Your task to perform on an android device: change the upload size in google photos Image 0: 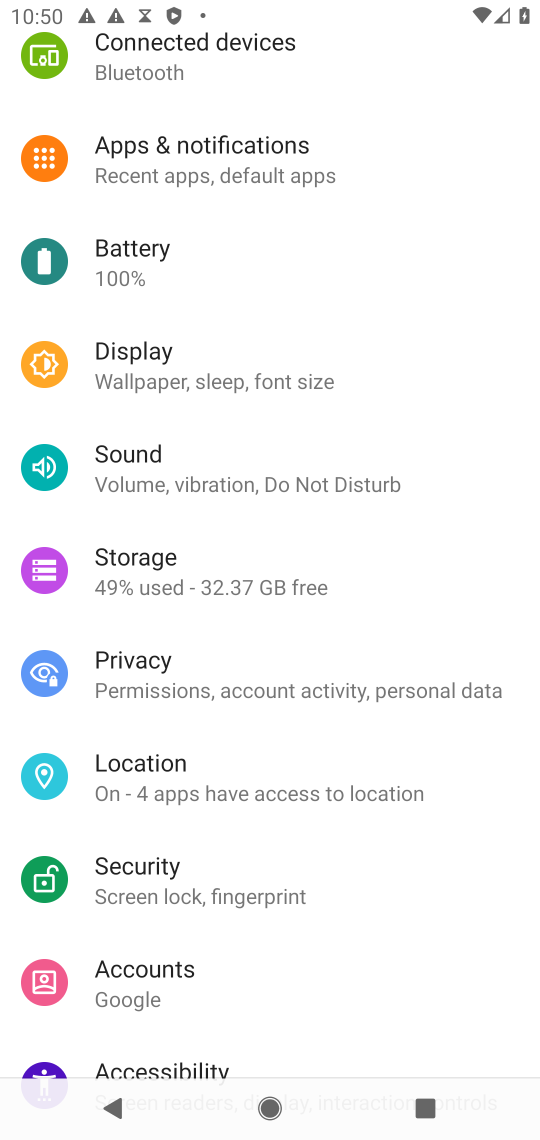
Step 0: press back button
Your task to perform on an android device: change the upload size in google photos Image 1: 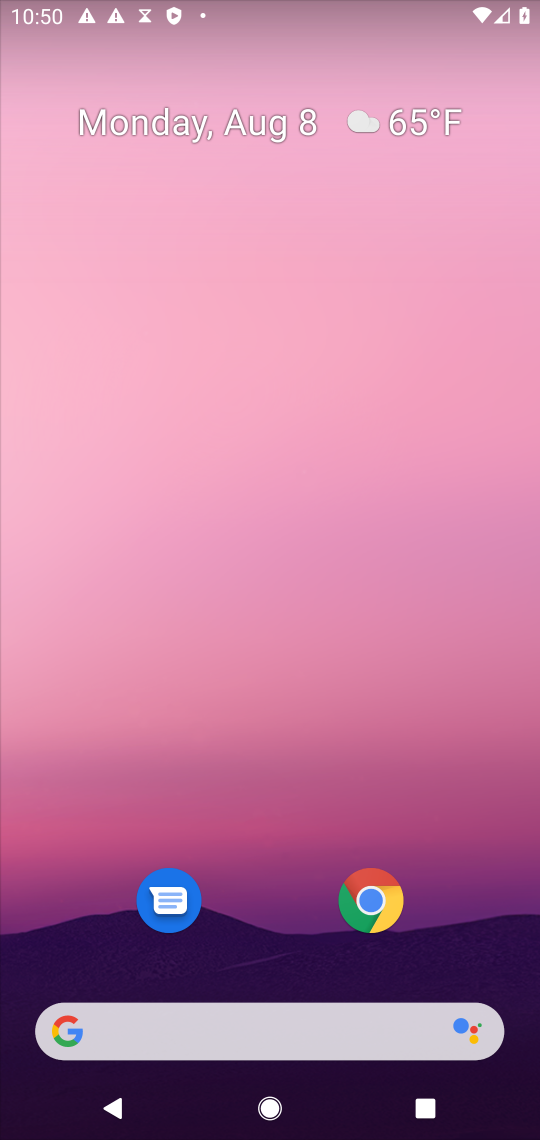
Step 1: drag from (251, 817) to (259, 184)
Your task to perform on an android device: change the upload size in google photos Image 2: 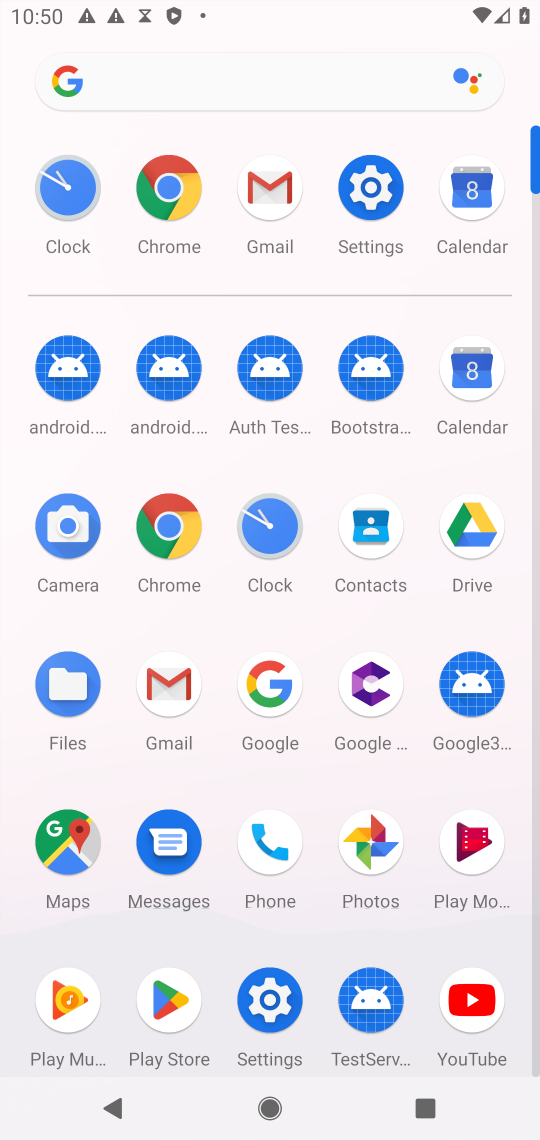
Step 2: click (357, 828)
Your task to perform on an android device: change the upload size in google photos Image 3: 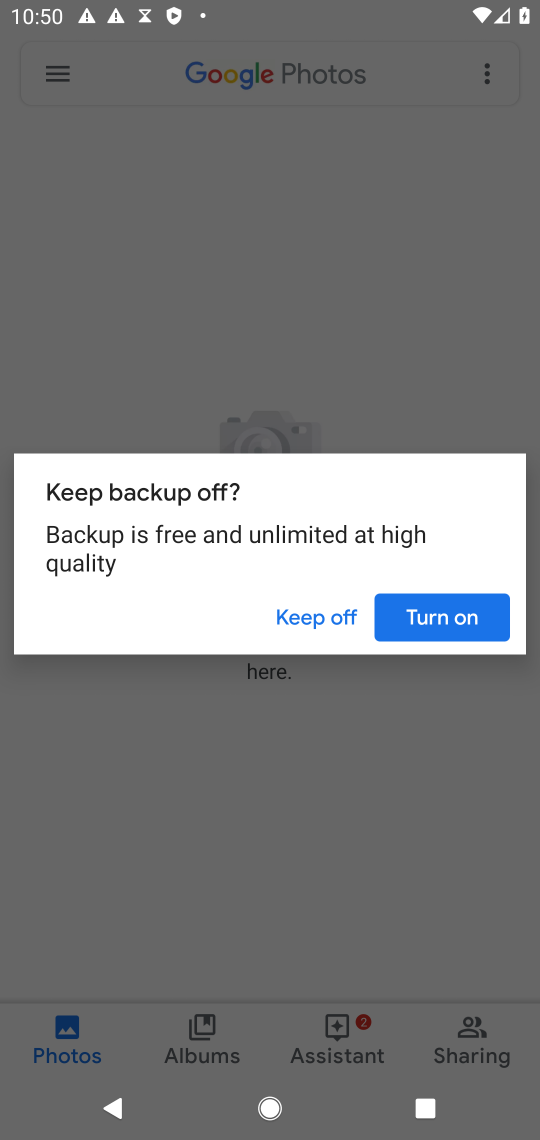
Step 3: click (423, 603)
Your task to perform on an android device: change the upload size in google photos Image 4: 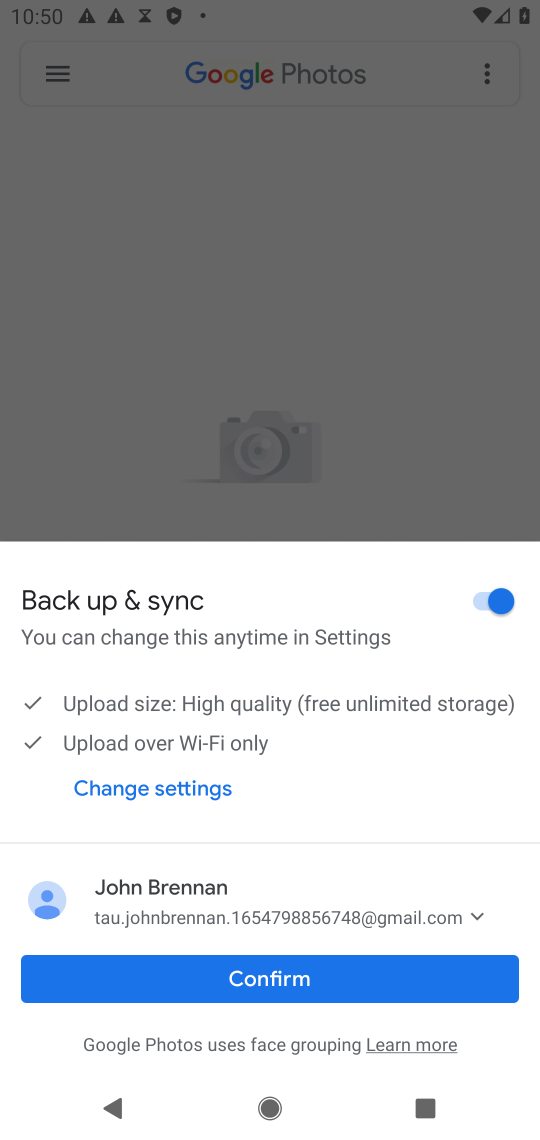
Step 4: click (224, 985)
Your task to perform on an android device: change the upload size in google photos Image 5: 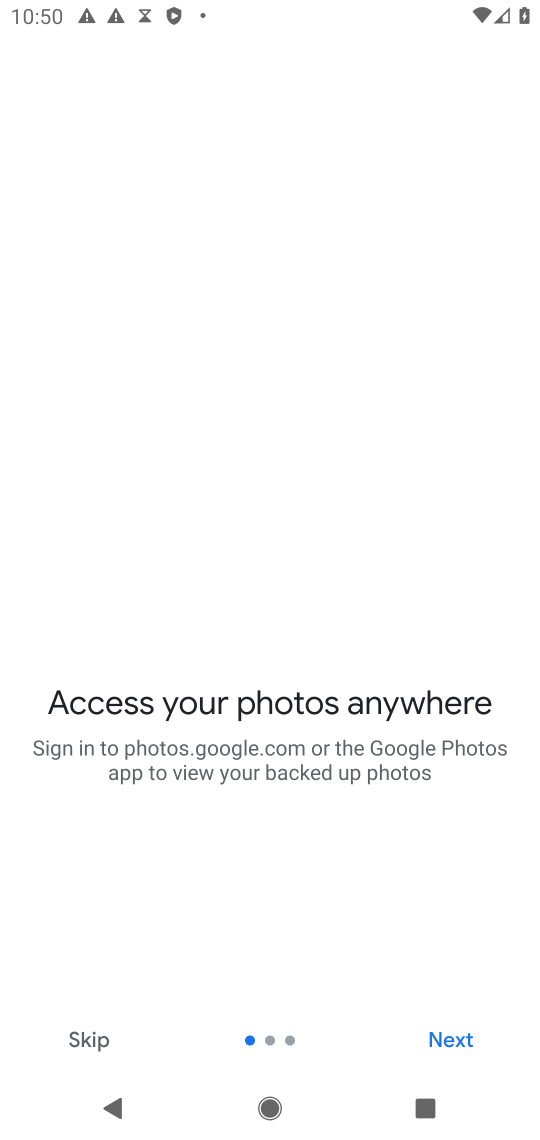
Step 5: click (459, 1037)
Your task to perform on an android device: change the upload size in google photos Image 6: 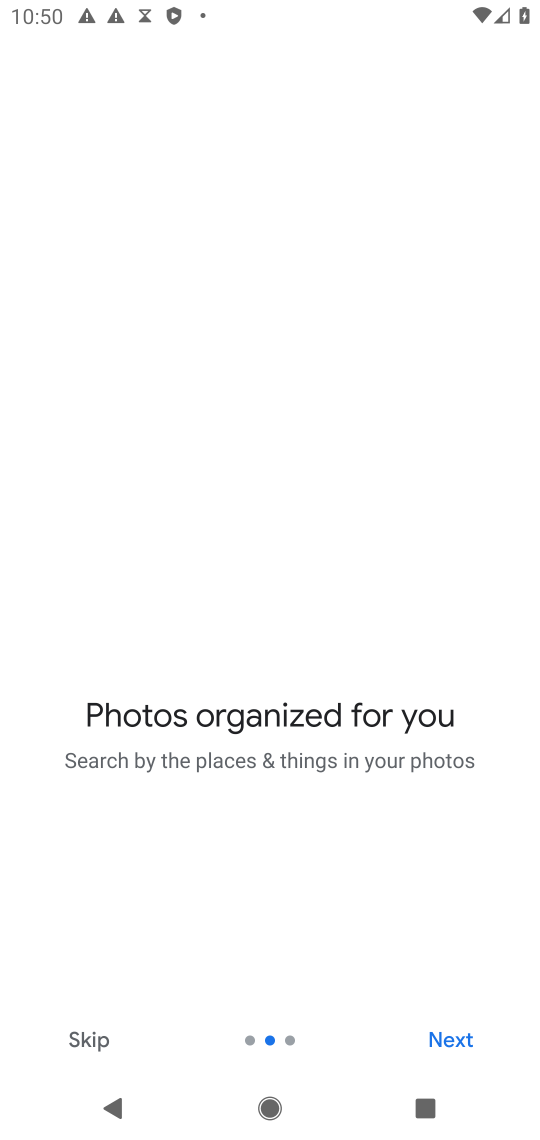
Step 6: click (459, 1037)
Your task to perform on an android device: change the upload size in google photos Image 7: 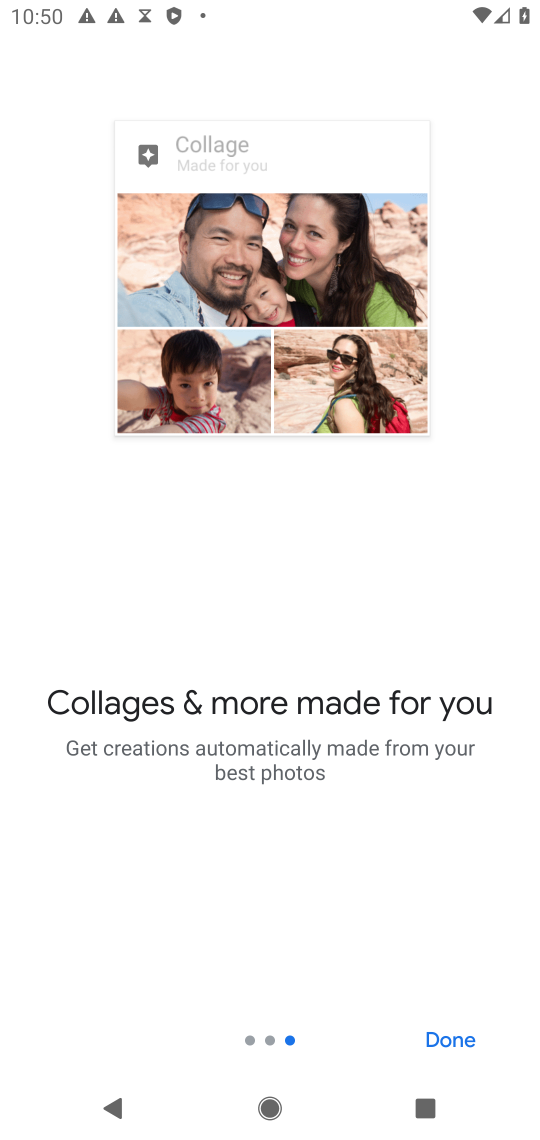
Step 7: click (459, 1037)
Your task to perform on an android device: change the upload size in google photos Image 8: 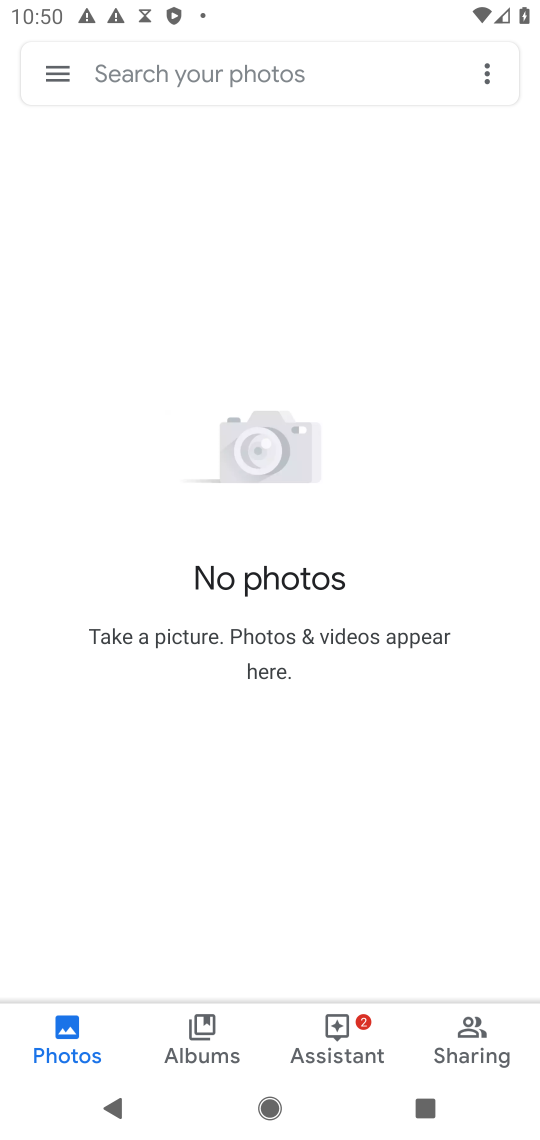
Step 8: click (47, 76)
Your task to perform on an android device: change the upload size in google photos Image 9: 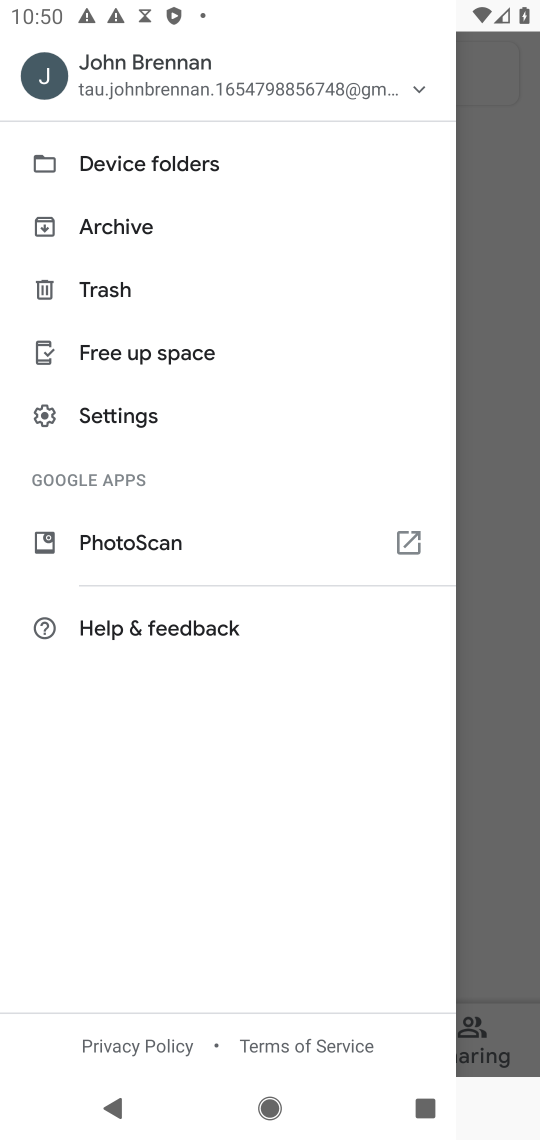
Step 9: click (140, 86)
Your task to perform on an android device: change the upload size in google photos Image 10: 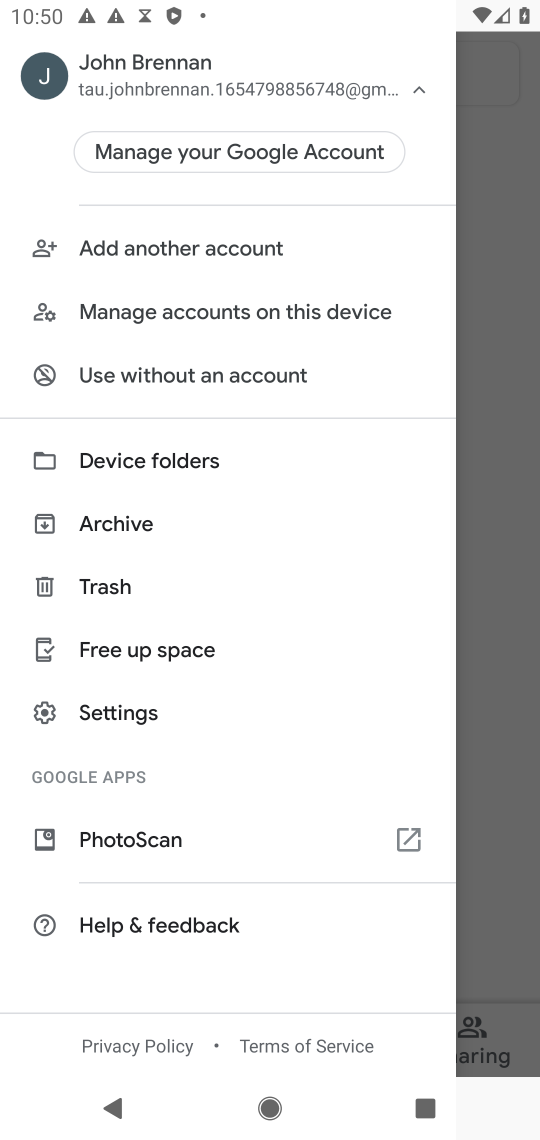
Step 10: click (140, 86)
Your task to perform on an android device: change the upload size in google photos Image 11: 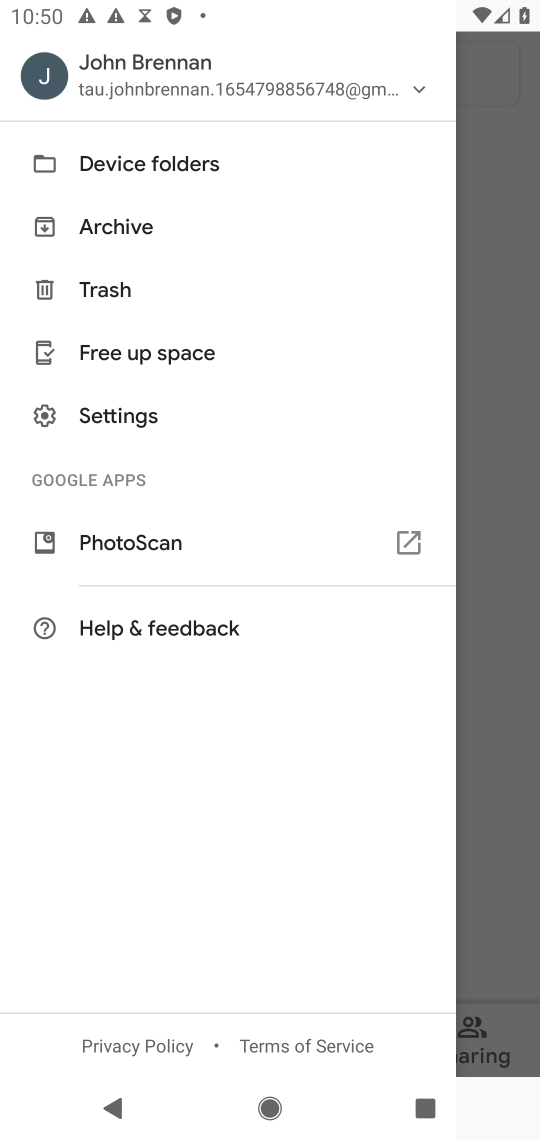
Step 11: click (108, 427)
Your task to perform on an android device: change the upload size in google photos Image 12: 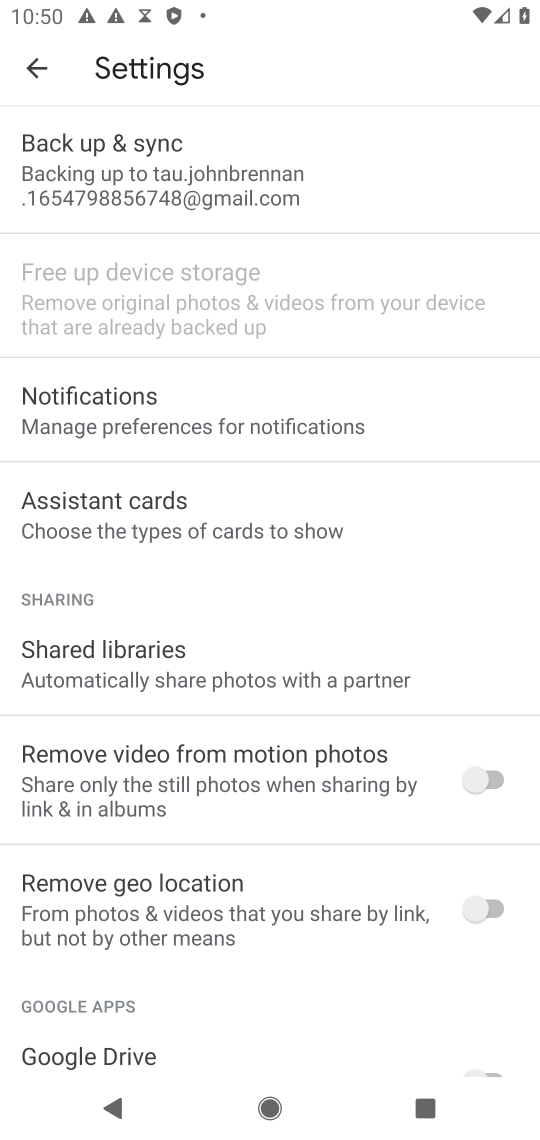
Step 12: click (145, 179)
Your task to perform on an android device: change the upload size in google photos Image 13: 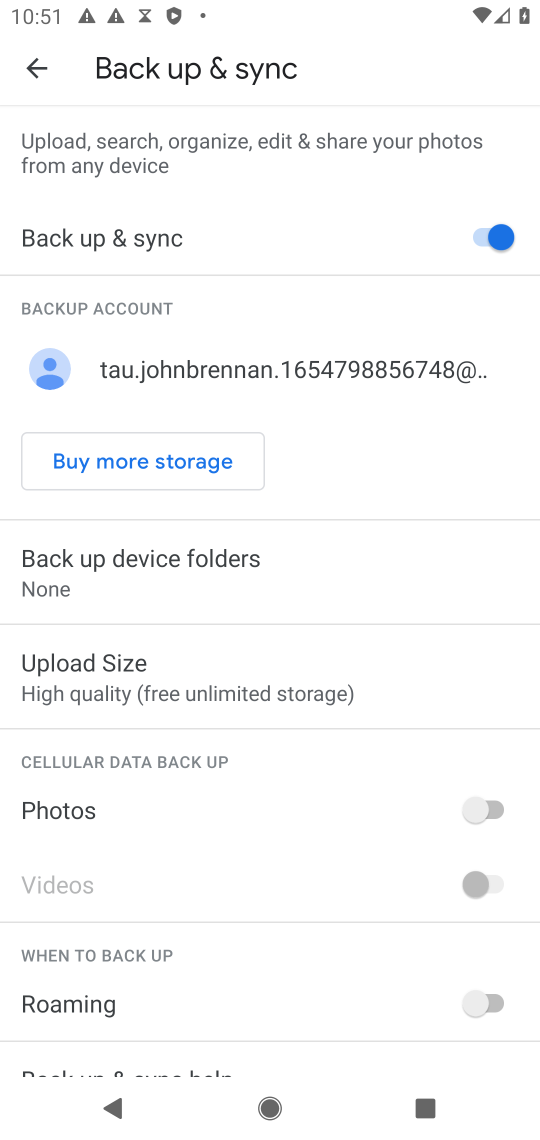
Step 13: click (133, 681)
Your task to perform on an android device: change the upload size in google photos Image 14: 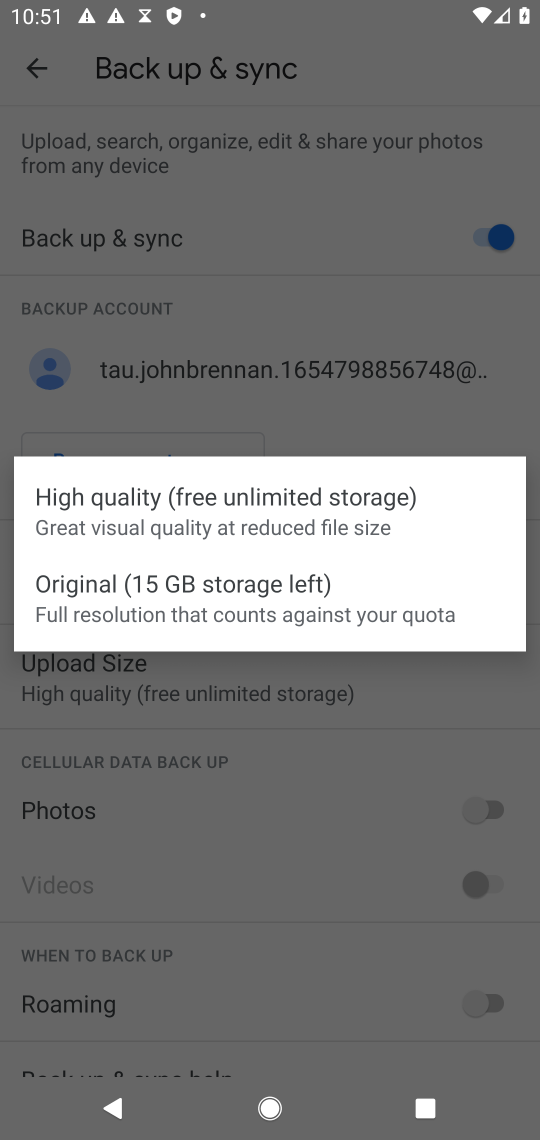
Step 14: click (170, 603)
Your task to perform on an android device: change the upload size in google photos Image 15: 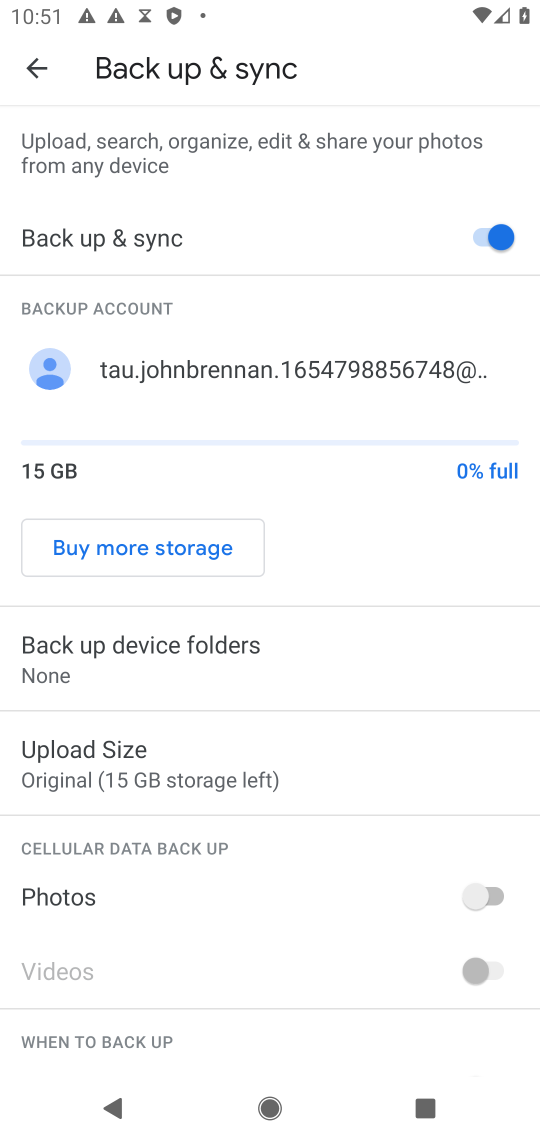
Step 15: task complete